Your task to perform on an android device: Go to Yahoo.com Image 0: 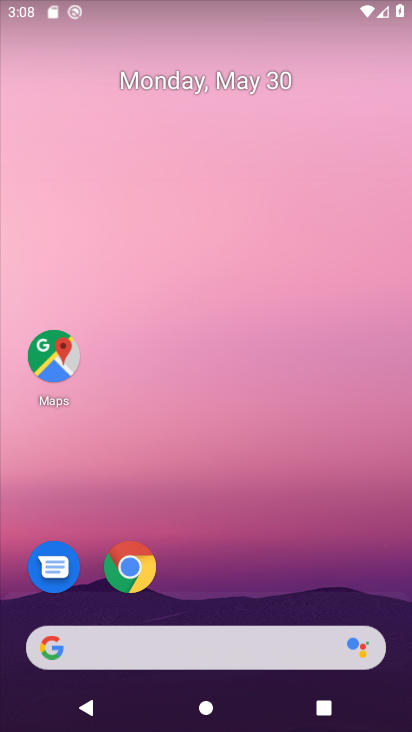
Step 0: drag from (213, 581) to (221, 133)
Your task to perform on an android device: Go to Yahoo.com Image 1: 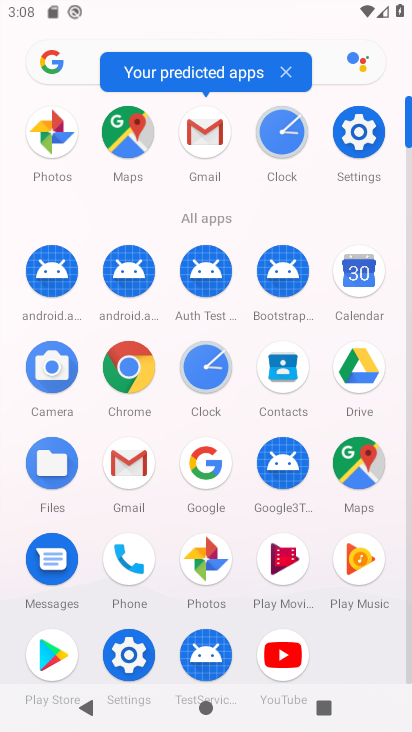
Step 1: click (147, 387)
Your task to perform on an android device: Go to Yahoo.com Image 2: 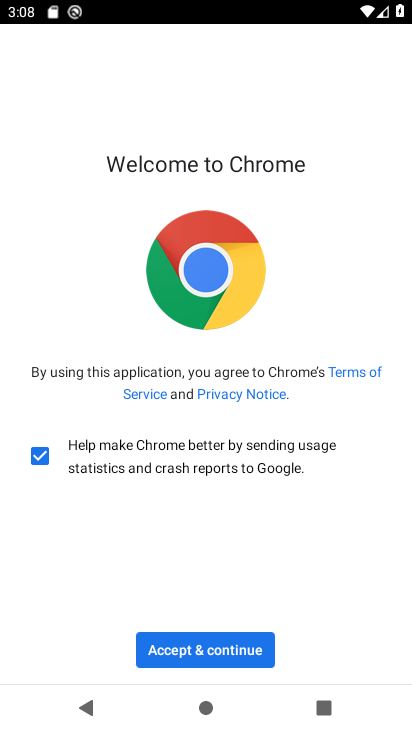
Step 2: click (214, 645)
Your task to perform on an android device: Go to Yahoo.com Image 3: 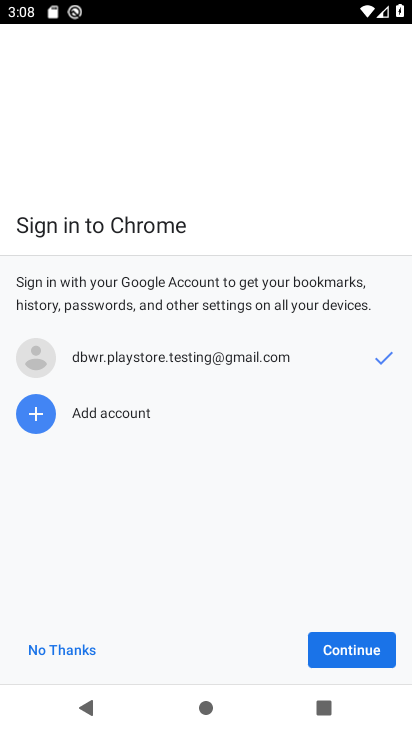
Step 3: click (341, 649)
Your task to perform on an android device: Go to Yahoo.com Image 4: 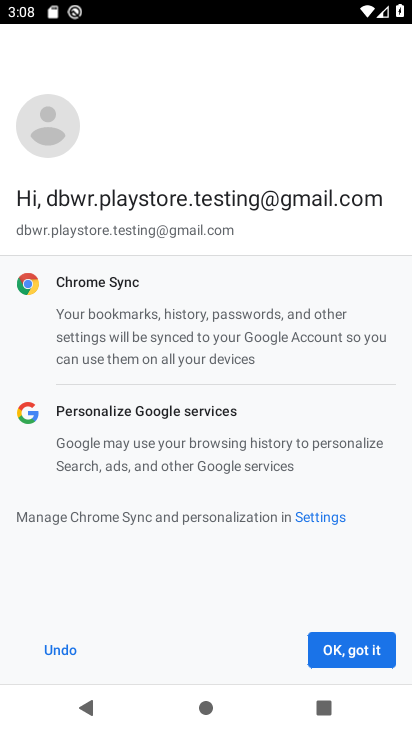
Step 4: click (48, 642)
Your task to perform on an android device: Go to Yahoo.com Image 5: 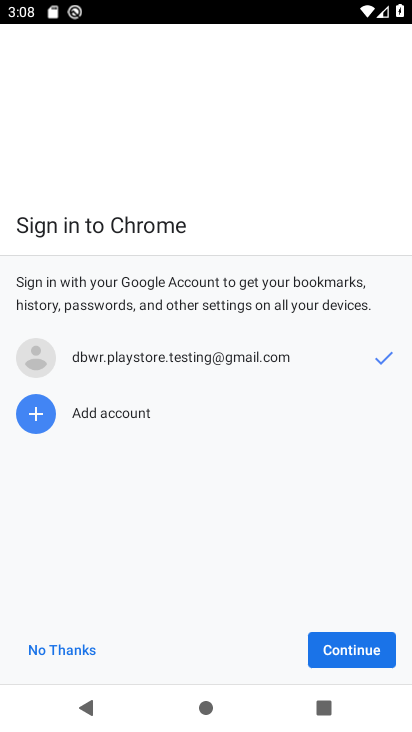
Step 5: click (94, 645)
Your task to perform on an android device: Go to Yahoo.com Image 6: 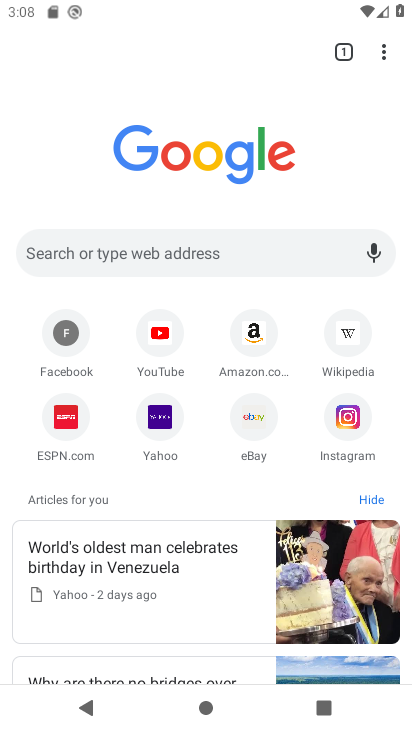
Step 6: click (169, 423)
Your task to perform on an android device: Go to Yahoo.com Image 7: 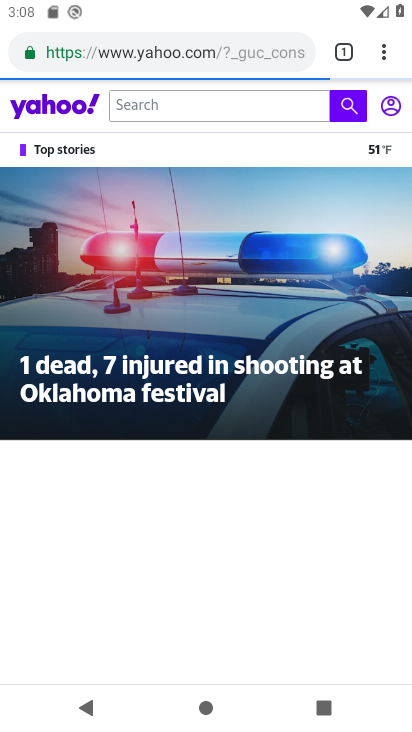
Step 7: task complete